Your task to perform on an android device: Open network settings Image 0: 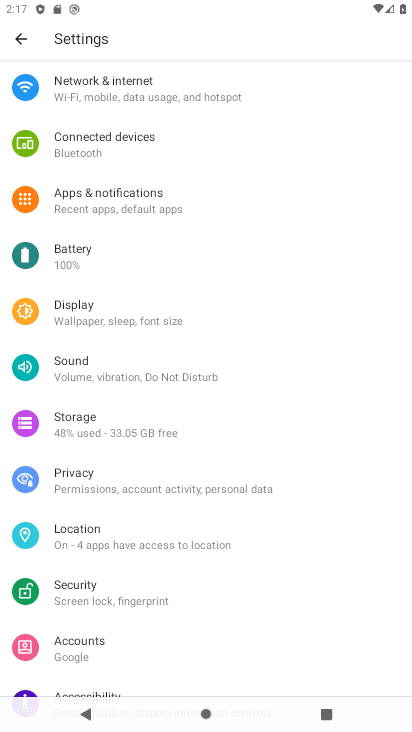
Step 0: click (214, 99)
Your task to perform on an android device: Open network settings Image 1: 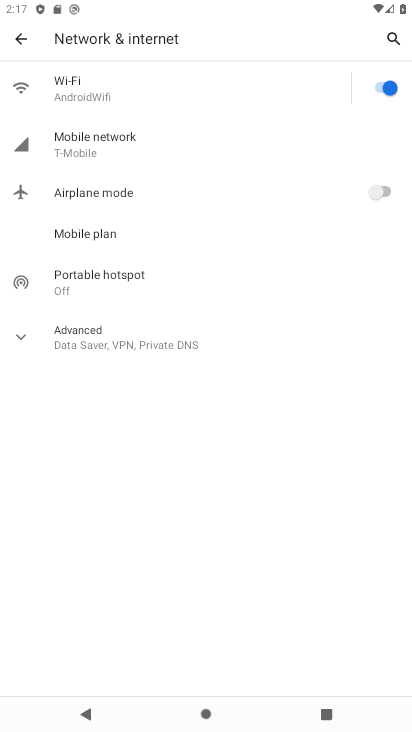
Step 1: task complete